Your task to perform on an android device: change alarm snooze length Image 0: 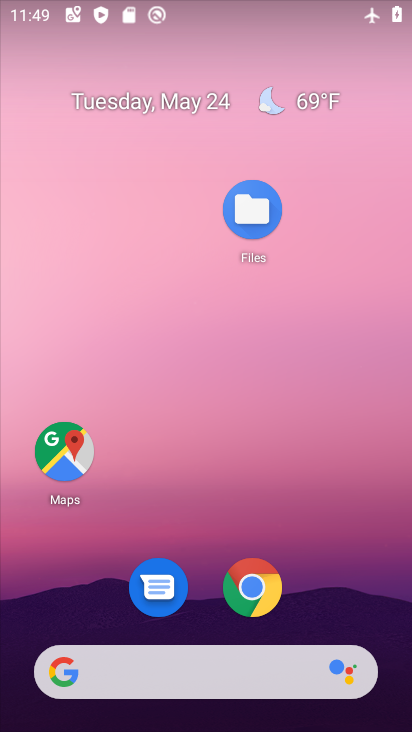
Step 0: drag from (331, 597) to (144, 1)
Your task to perform on an android device: change alarm snooze length Image 1: 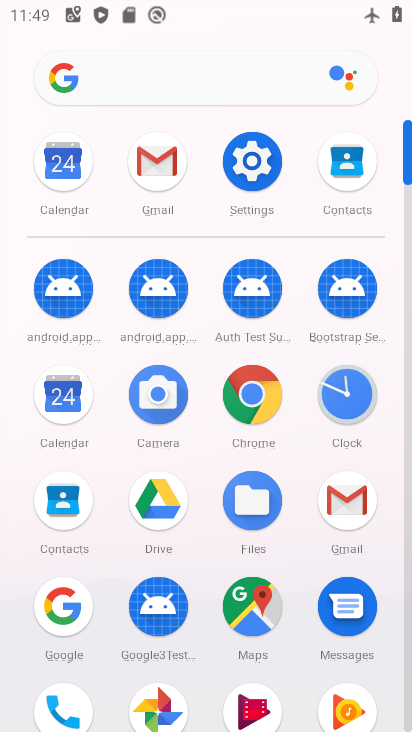
Step 1: click (356, 403)
Your task to perform on an android device: change alarm snooze length Image 2: 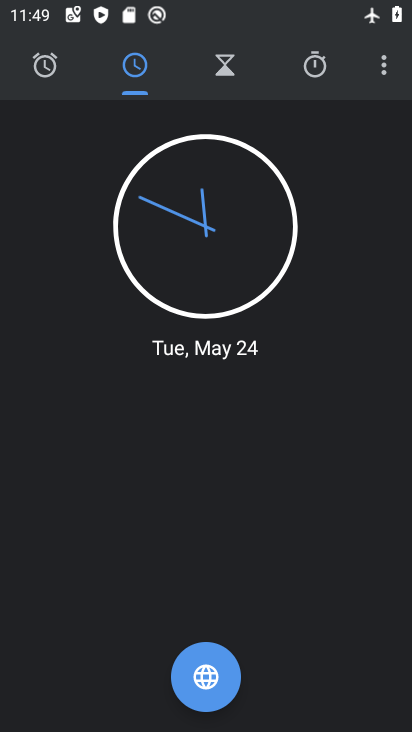
Step 2: click (383, 68)
Your task to perform on an android device: change alarm snooze length Image 3: 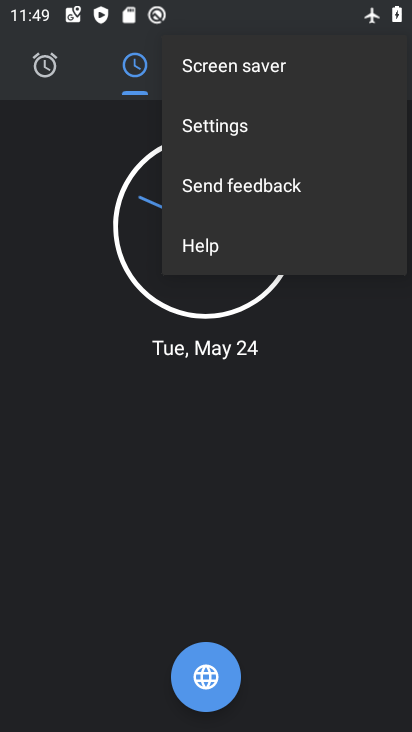
Step 3: click (240, 120)
Your task to perform on an android device: change alarm snooze length Image 4: 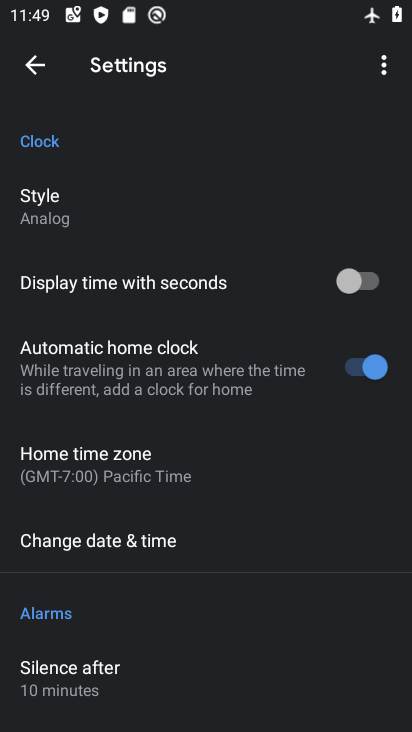
Step 4: drag from (226, 650) to (209, 326)
Your task to perform on an android device: change alarm snooze length Image 5: 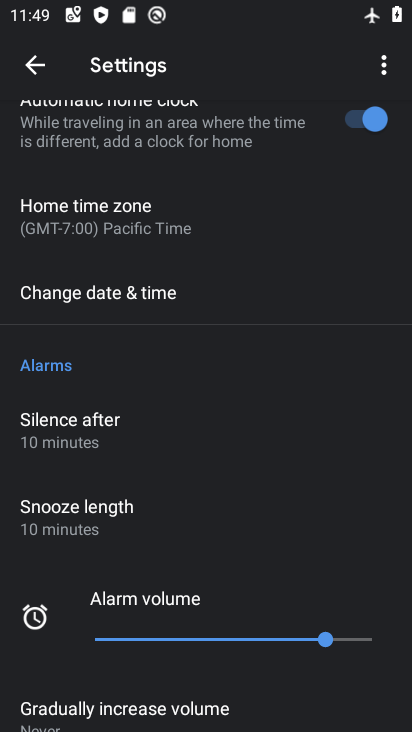
Step 5: click (80, 530)
Your task to perform on an android device: change alarm snooze length Image 6: 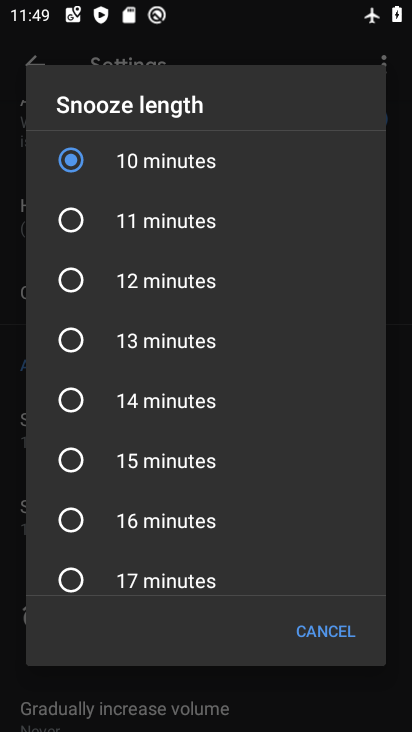
Step 6: click (71, 576)
Your task to perform on an android device: change alarm snooze length Image 7: 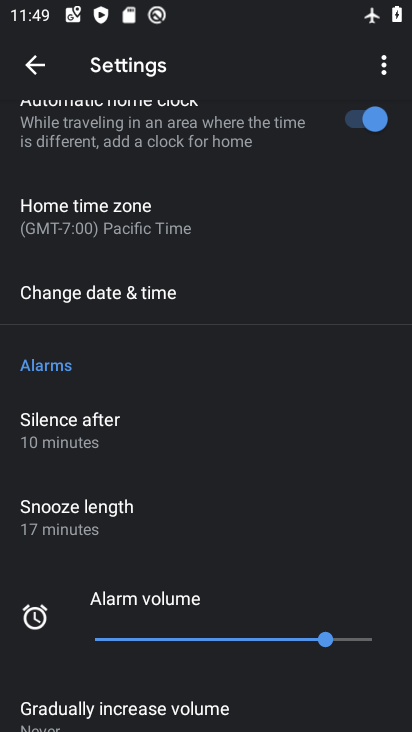
Step 7: task complete